Your task to perform on an android device: find snoozed emails in the gmail app Image 0: 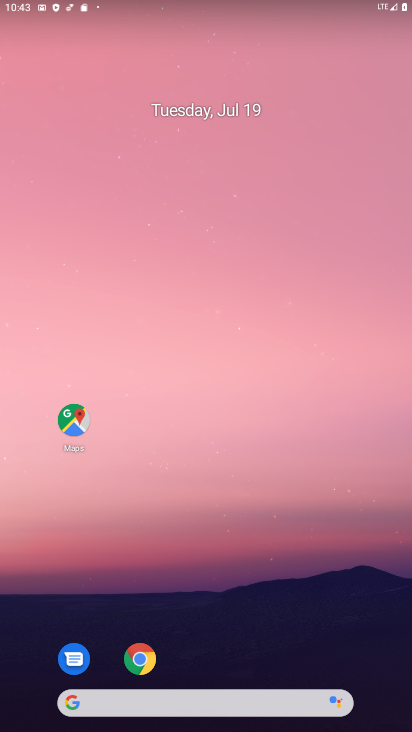
Step 0: drag from (224, 582) to (267, 222)
Your task to perform on an android device: find snoozed emails in the gmail app Image 1: 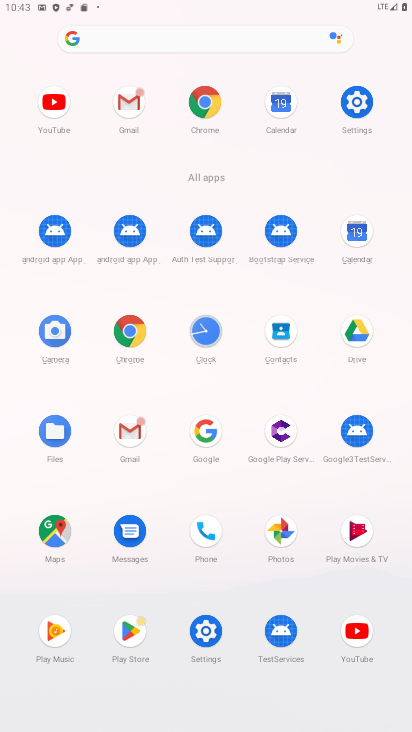
Step 1: click (134, 432)
Your task to perform on an android device: find snoozed emails in the gmail app Image 2: 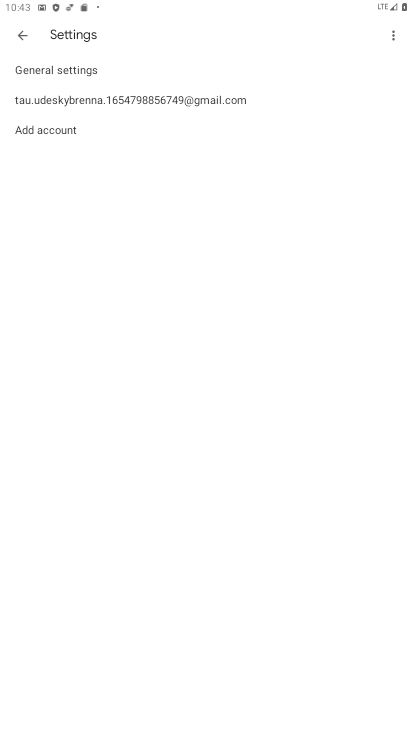
Step 2: click (18, 32)
Your task to perform on an android device: find snoozed emails in the gmail app Image 3: 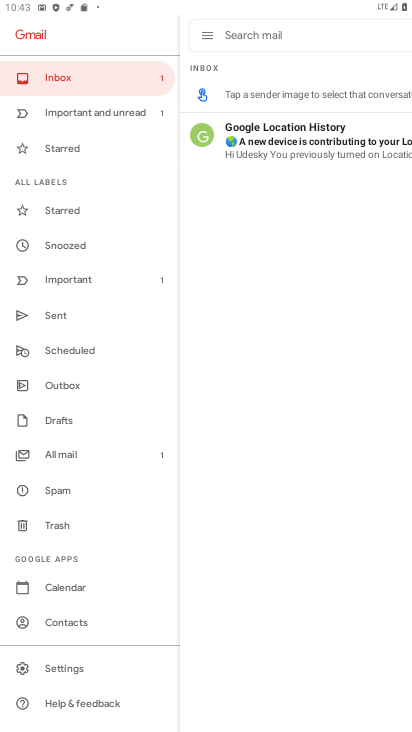
Step 3: click (51, 238)
Your task to perform on an android device: find snoozed emails in the gmail app Image 4: 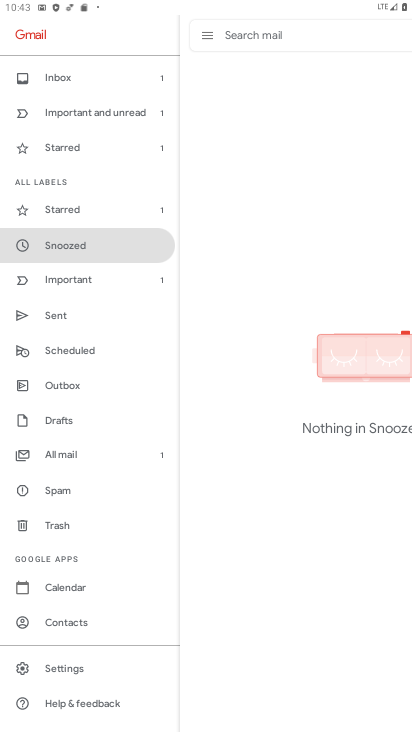
Step 4: task complete